Your task to perform on an android device: allow notifications from all sites in the chrome app Image 0: 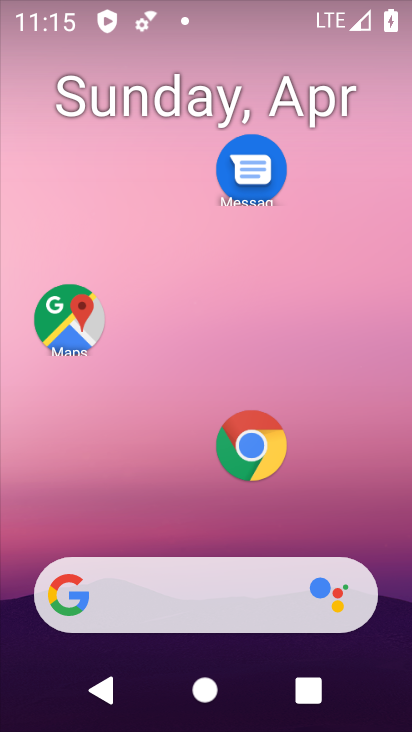
Step 0: drag from (205, 601) to (331, 121)
Your task to perform on an android device: allow notifications from all sites in the chrome app Image 1: 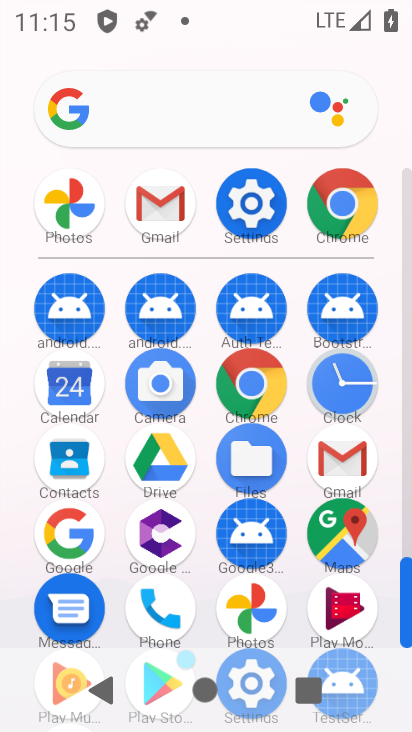
Step 1: click (353, 216)
Your task to perform on an android device: allow notifications from all sites in the chrome app Image 2: 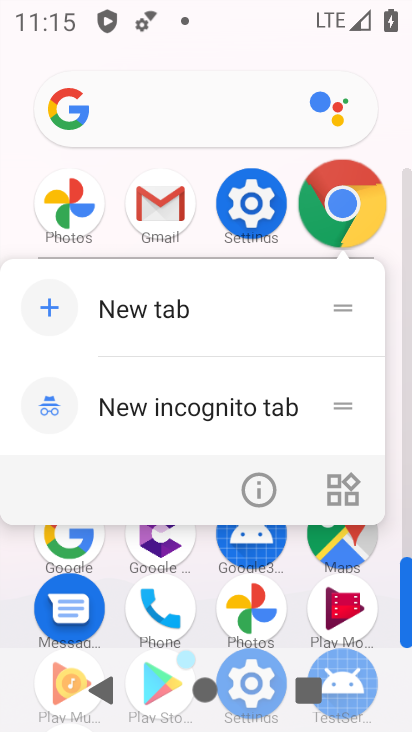
Step 2: click (342, 208)
Your task to perform on an android device: allow notifications from all sites in the chrome app Image 3: 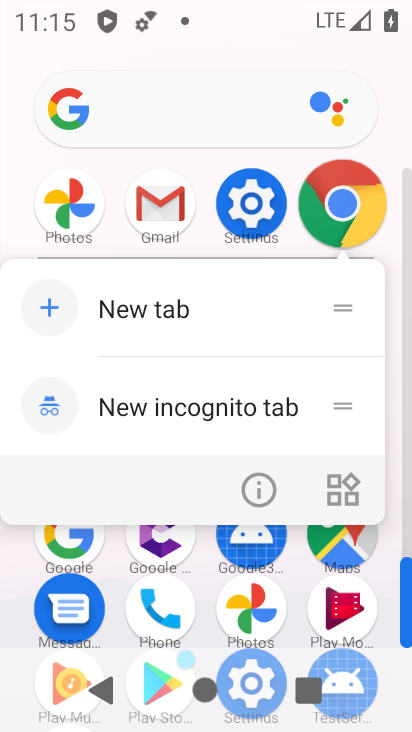
Step 3: click (330, 229)
Your task to perform on an android device: allow notifications from all sites in the chrome app Image 4: 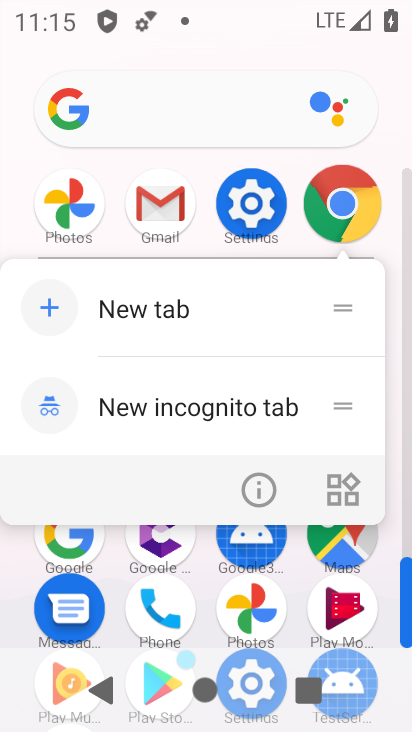
Step 4: click (347, 211)
Your task to perform on an android device: allow notifications from all sites in the chrome app Image 5: 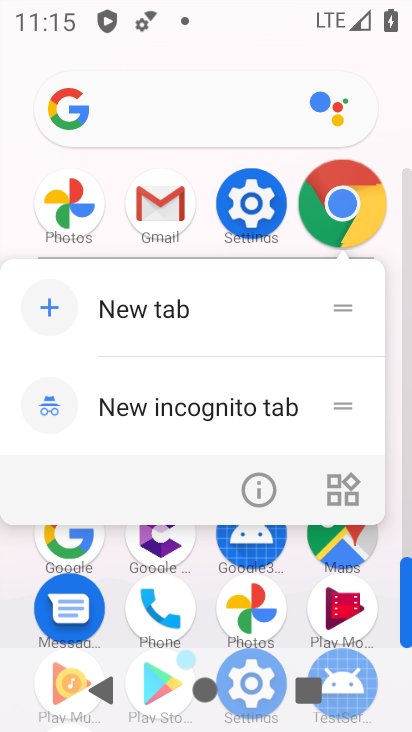
Step 5: click (344, 212)
Your task to perform on an android device: allow notifications from all sites in the chrome app Image 6: 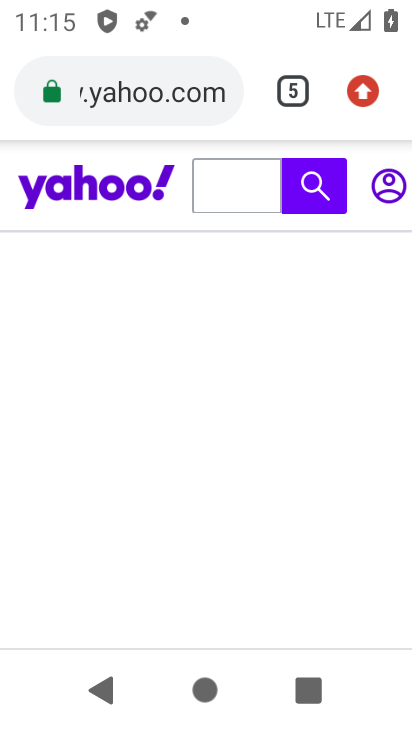
Step 6: click (360, 111)
Your task to perform on an android device: allow notifications from all sites in the chrome app Image 7: 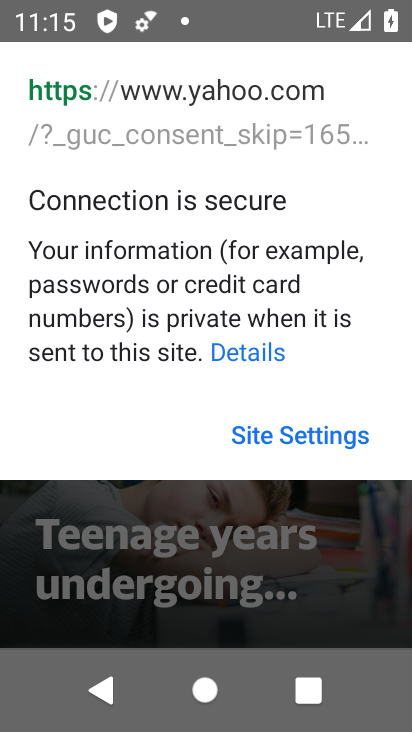
Step 7: press back button
Your task to perform on an android device: allow notifications from all sites in the chrome app Image 8: 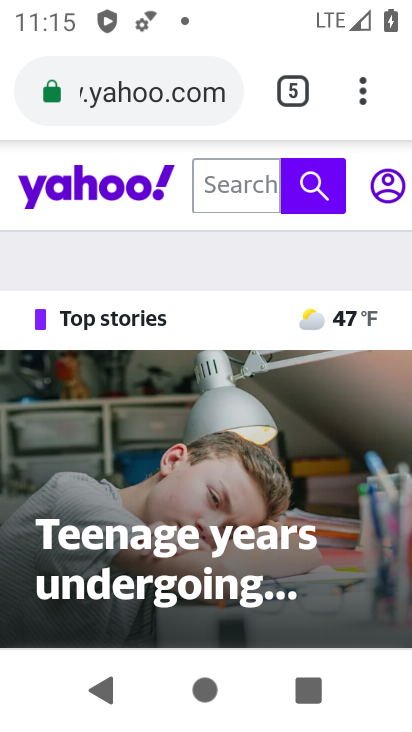
Step 8: drag from (363, 94) to (168, 468)
Your task to perform on an android device: allow notifications from all sites in the chrome app Image 9: 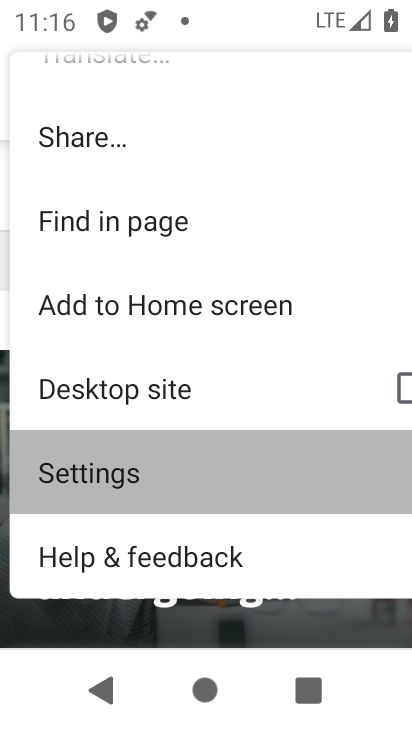
Step 9: click (168, 468)
Your task to perform on an android device: allow notifications from all sites in the chrome app Image 10: 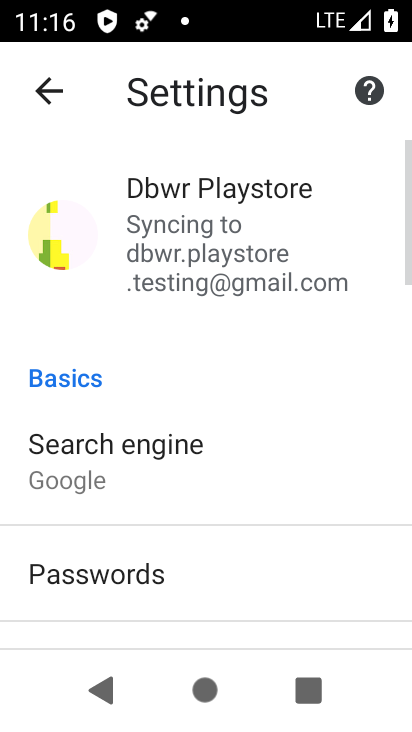
Step 10: drag from (153, 581) to (337, 25)
Your task to perform on an android device: allow notifications from all sites in the chrome app Image 11: 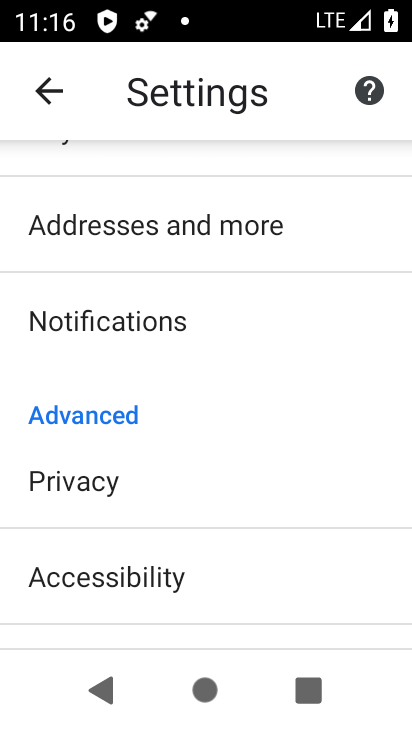
Step 11: drag from (191, 557) to (246, 266)
Your task to perform on an android device: allow notifications from all sites in the chrome app Image 12: 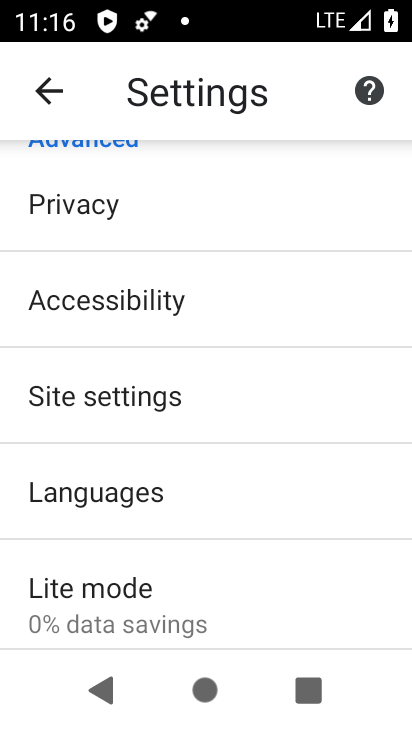
Step 12: click (107, 397)
Your task to perform on an android device: allow notifications from all sites in the chrome app Image 13: 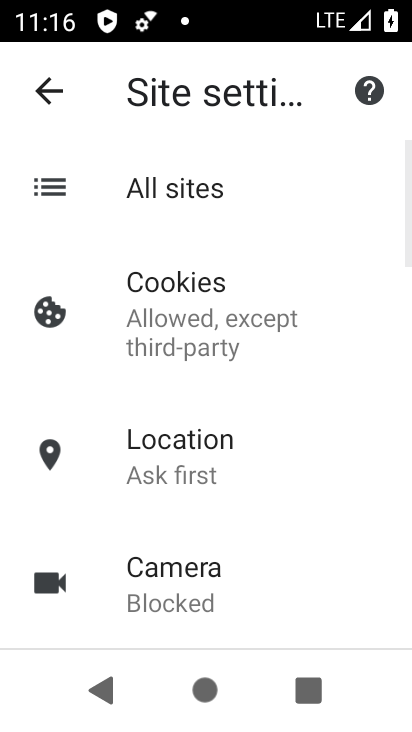
Step 13: drag from (194, 558) to (345, 232)
Your task to perform on an android device: allow notifications from all sites in the chrome app Image 14: 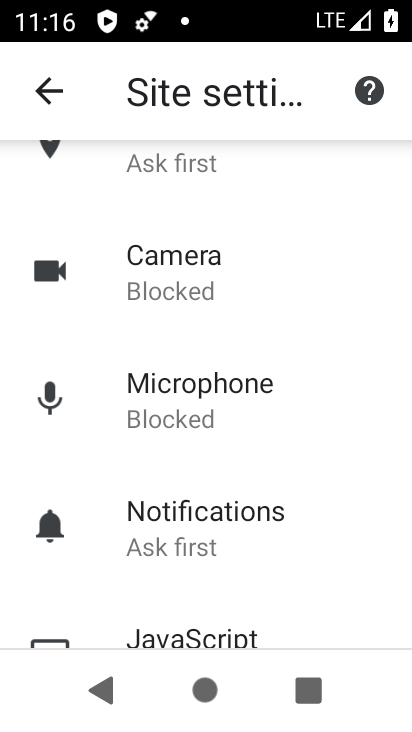
Step 14: click (208, 532)
Your task to perform on an android device: allow notifications from all sites in the chrome app Image 15: 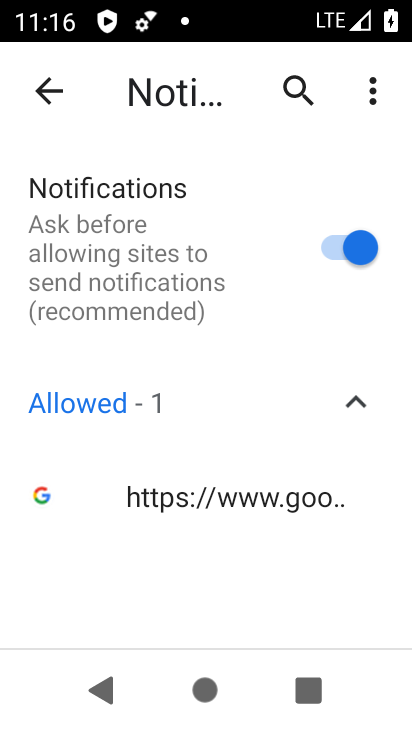
Step 15: task complete